Your task to perform on an android device: Open my contact list Image 0: 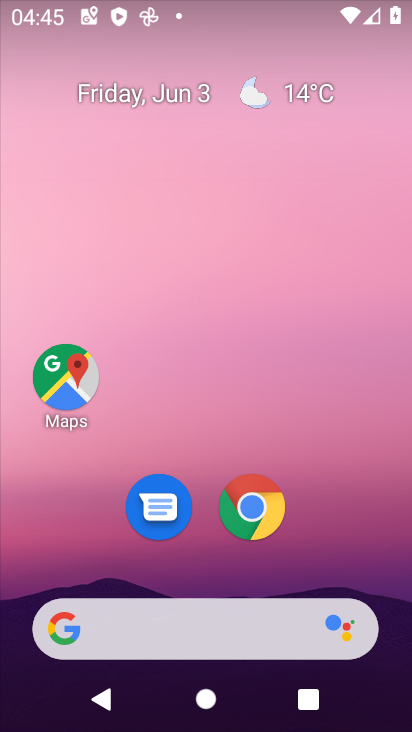
Step 0: press home button
Your task to perform on an android device: Open my contact list Image 1: 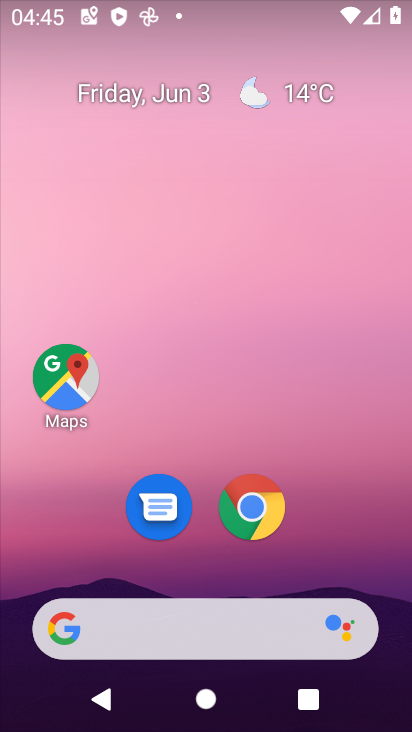
Step 1: drag from (350, 569) to (327, 132)
Your task to perform on an android device: Open my contact list Image 2: 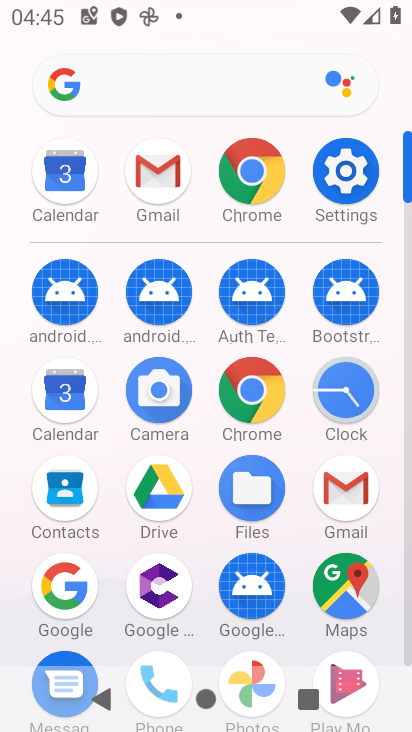
Step 2: click (76, 498)
Your task to perform on an android device: Open my contact list Image 3: 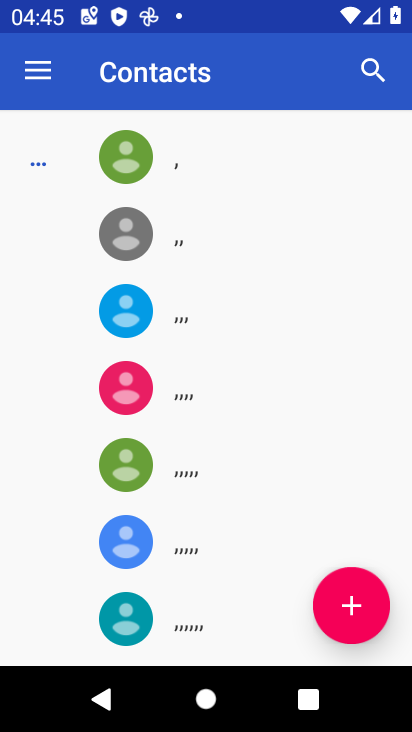
Step 3: task complete